Your task to perform on an android device: turn notification dots on Image 0: 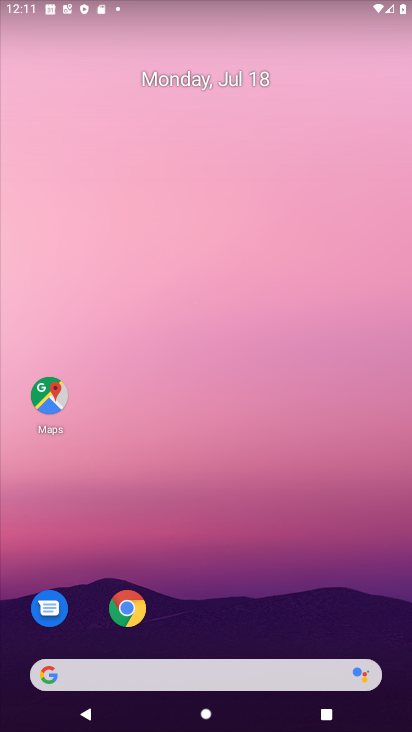
Step 0: drag from (336, 608) to (252, 192)
Your task to perform on an android device: turn notification dots on Image 1: 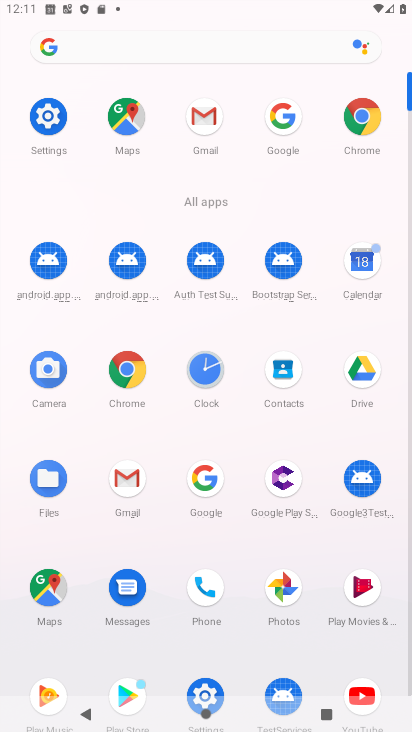
Step 1: click (46, 121)
Your task to perform on an android device: turn notification dots on Image 2: 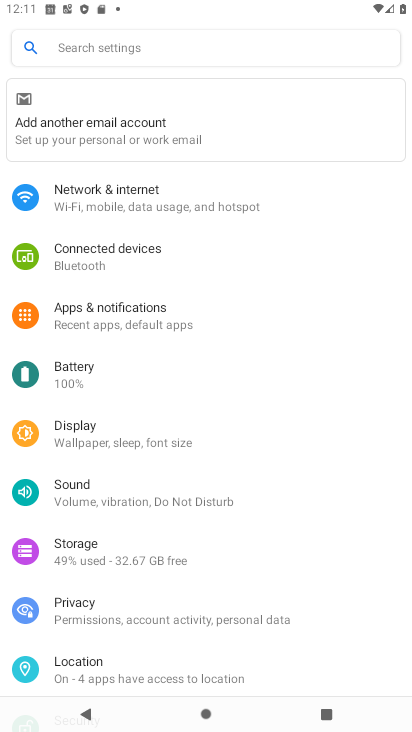
Step 2: click (201, 313)
Your task to perform on an android device: turn notification dots on Image 3: 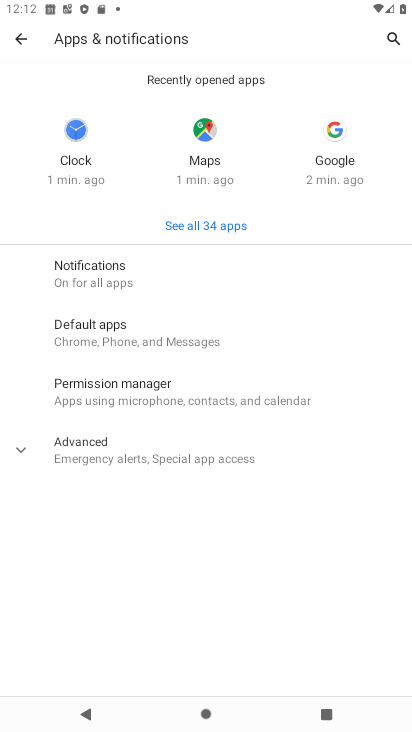
Step 3: click (190, 286)
Your task to perform on an android device: turn notification dots on Image 4: 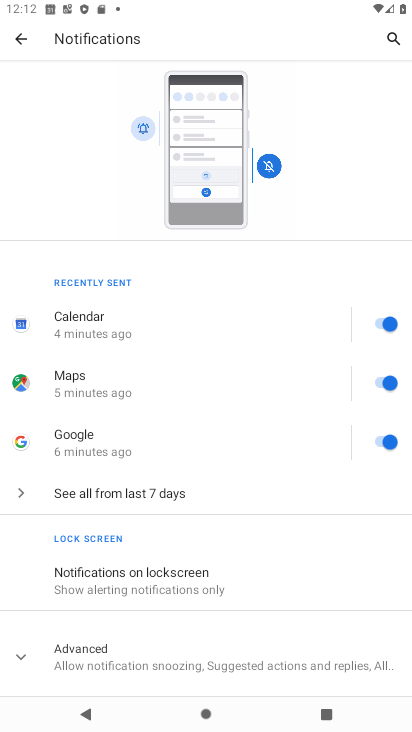
Step 4: click (251, 650)
Your task to perform on an android device: turn notification dots on Image 5: 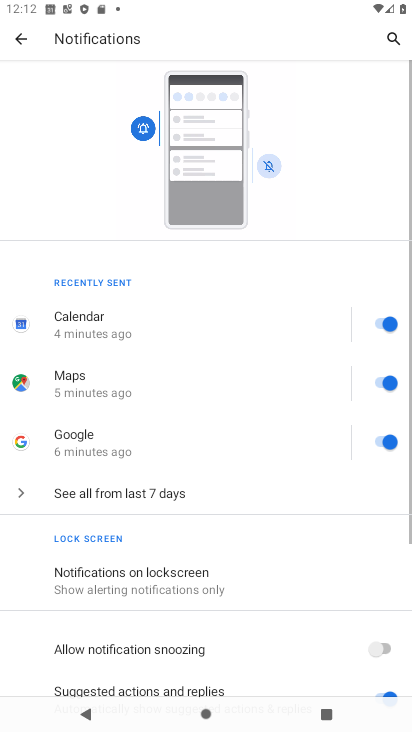
Step 5: task complete